Your task to perform on an android device: Open notification settings Image 0: 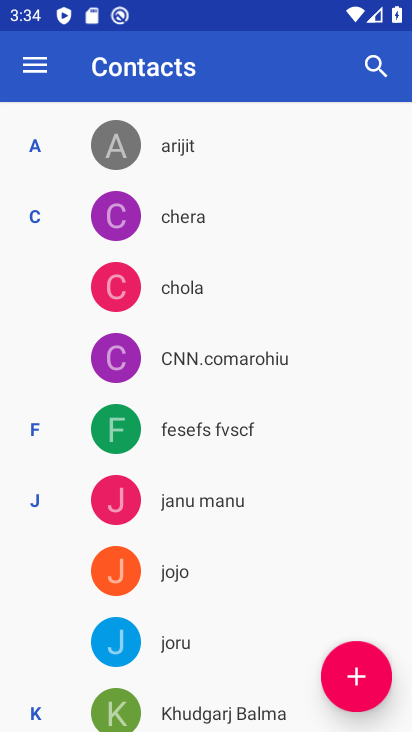
Step 0: press home button
Your task to perform on an android device: Open notification settings Image 1: 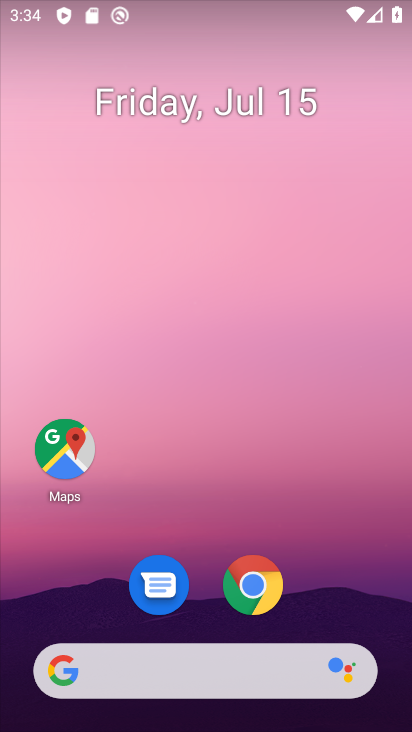
Step 1: drag from (330, 575) to (310, 96)
Your task to perform on an android device: Open notification settings Image 2: 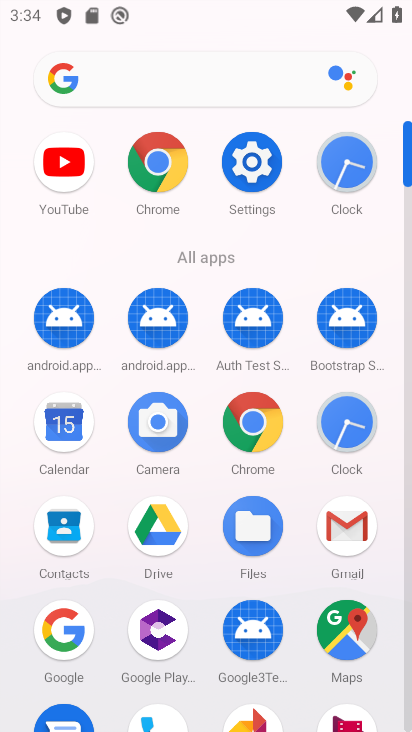
Step 2: click (251, 154)
Your task to perform on an android device: Open notification settings Image 3: 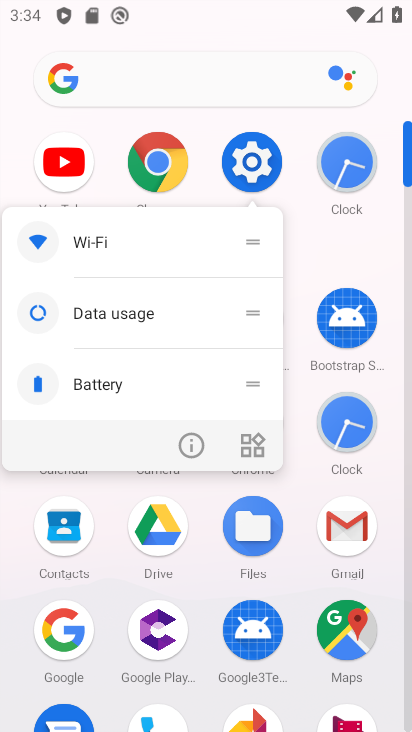
Step 3: click (251, 152)
Your task to perform on an android device: Open notification settings Image 4: 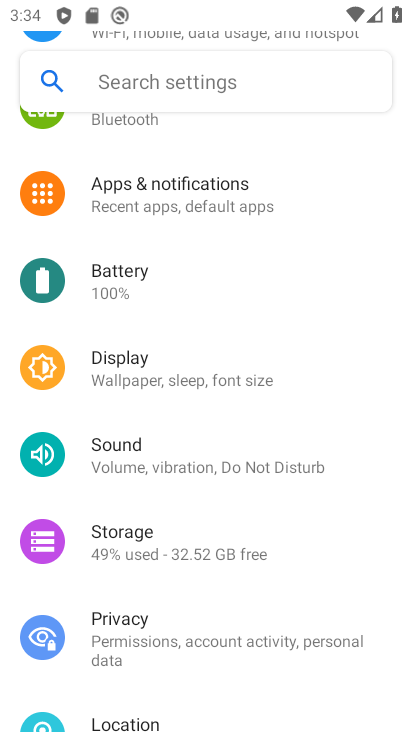
Step 4: drag from (235, 320) to (233, 520)
Your task to perform on an android device: Open notification settings Image 5: 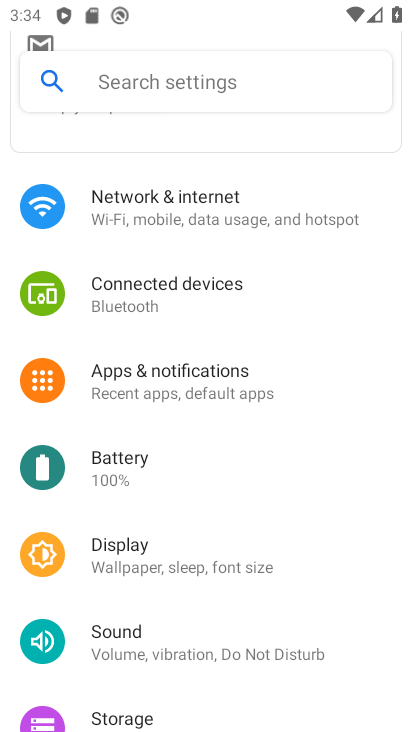
Step 5: click (222, 392)
Your task to perform on an android device: Open notification settings Image 6: 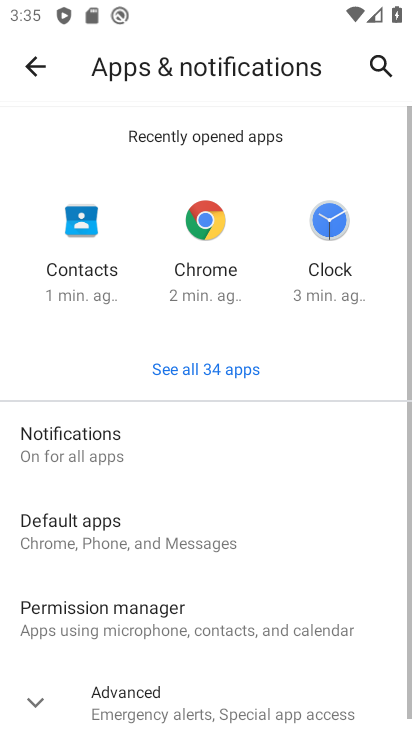
Step 6: click (104, 437)
Your task to perform on an android device: Open notification settings Image 7: 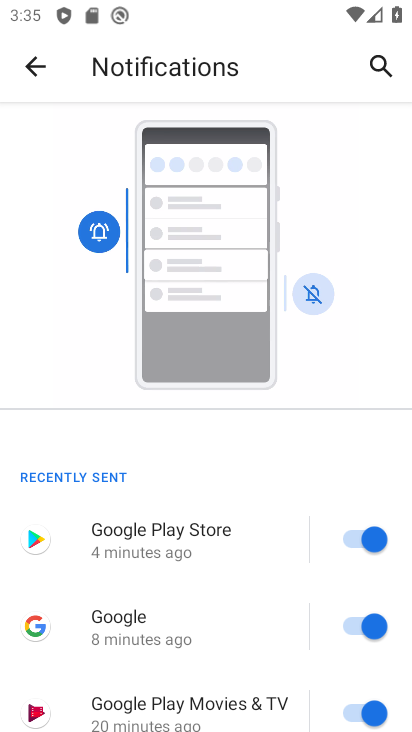
Step 7: task complete